Your task to perform on an android device: Open calendar and show me the second week of next month Image 0: 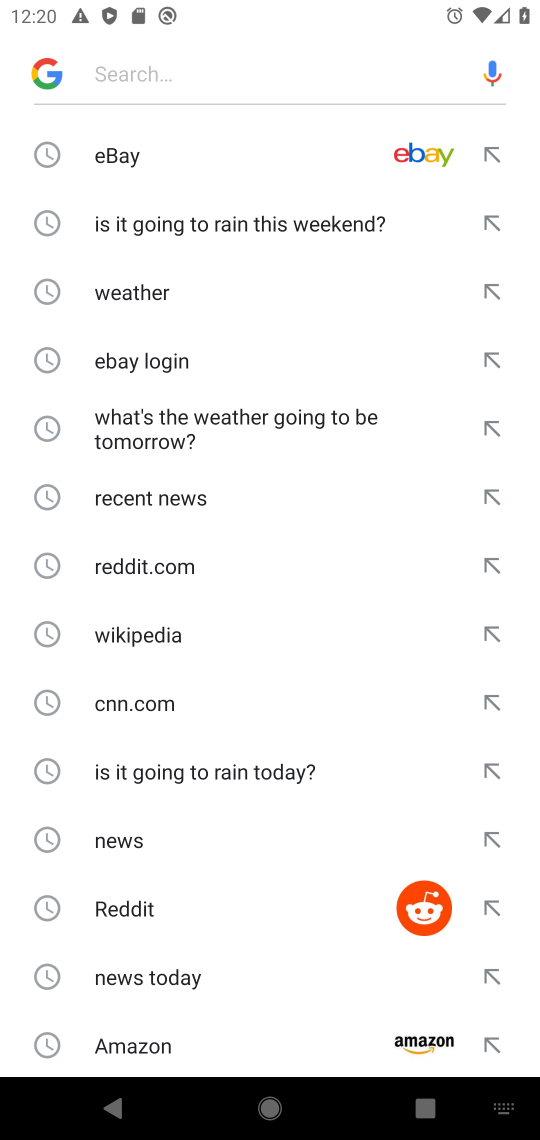
Step 0: press home button
Your task to perform on an android device: Open calendar and show me the second week of next month Image 1: 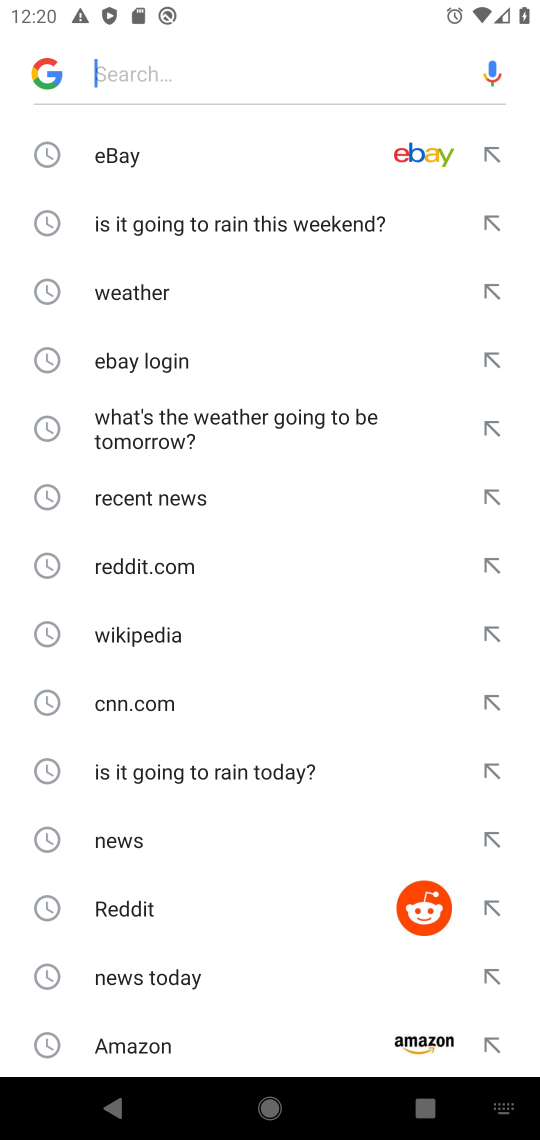
Step 1: press home button
Your task to perform on an android device: Open calendar and show me the second week of next month Image 2: 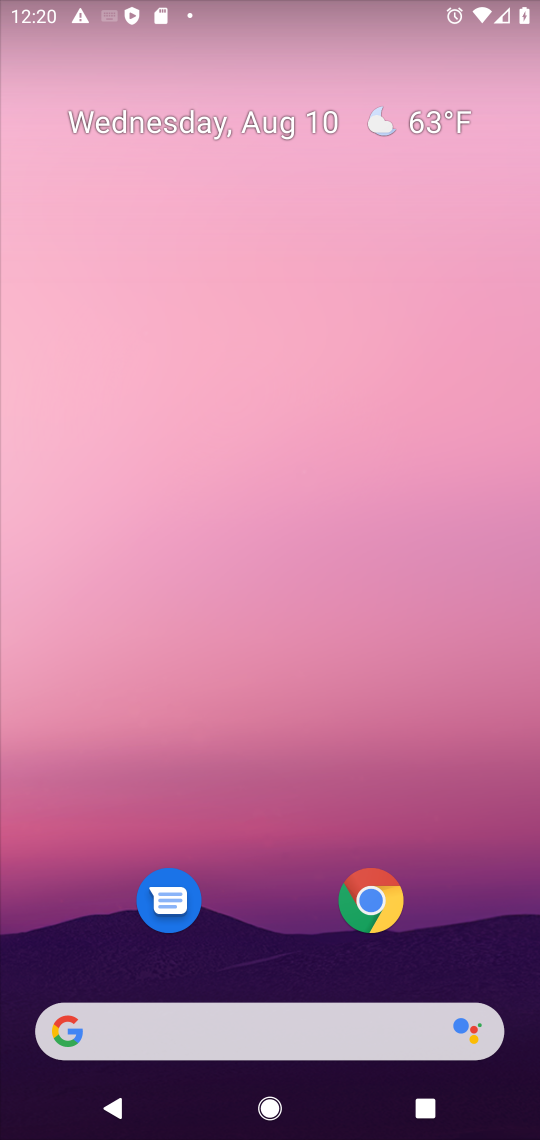
Step 2: drag from (293, 872) to (329, 0)
Your task to perform on an android device: Open calendar and show me the second week of next month Image 3: 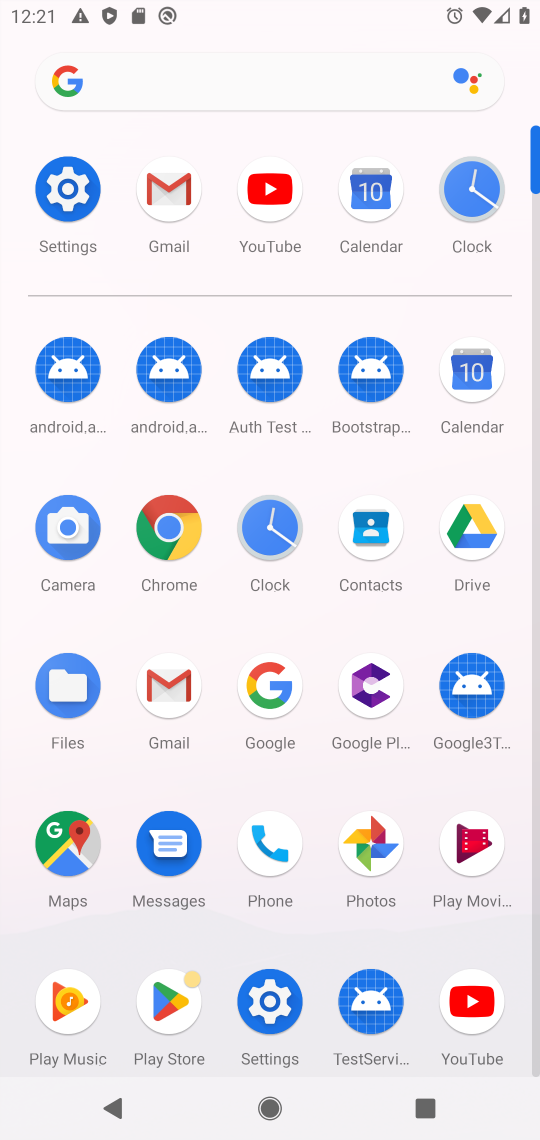
Step 3: click (373, 199)
Your task to perform on an android device: Open calendar and show me the second week of next month Image 4: 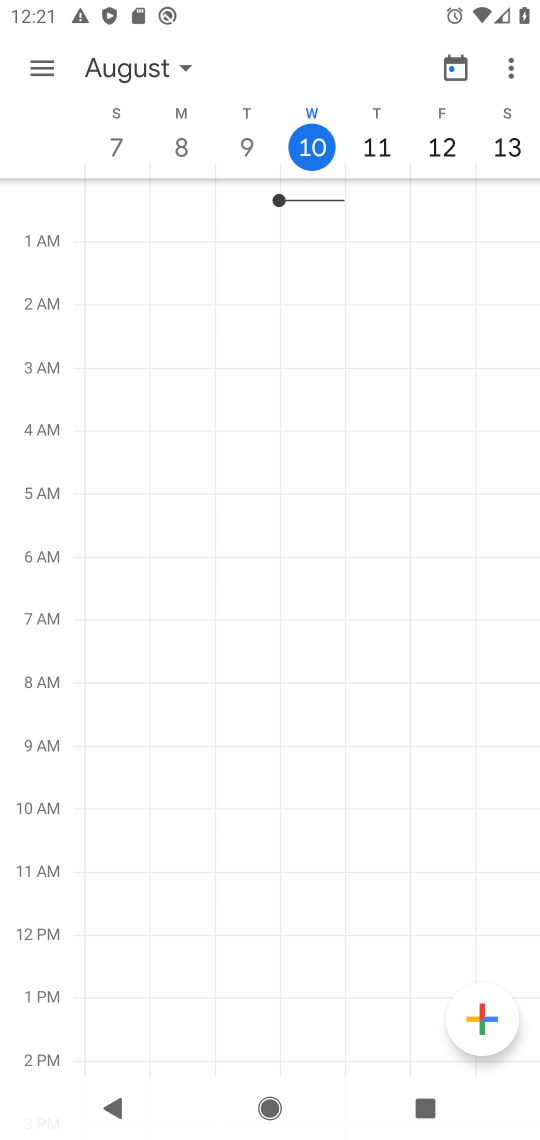
Step 4: task complete